Your task to perform on an android device: see creations saved in the google photos Image 0: 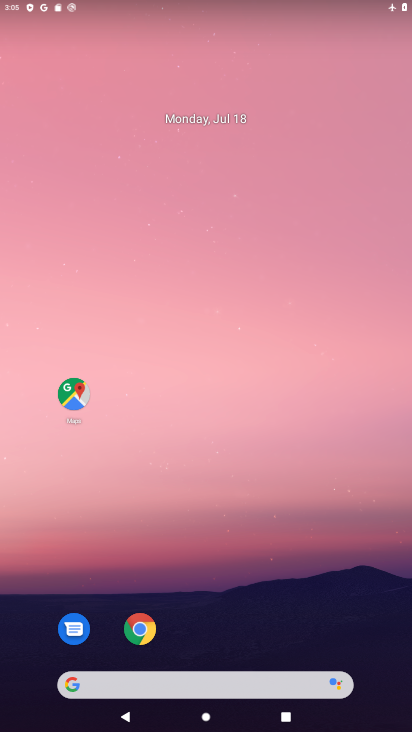
Step 0: drag from (196, 656) to (225, 96)
Your task to perform on an android device: see creations saved in the google photos Image 1: 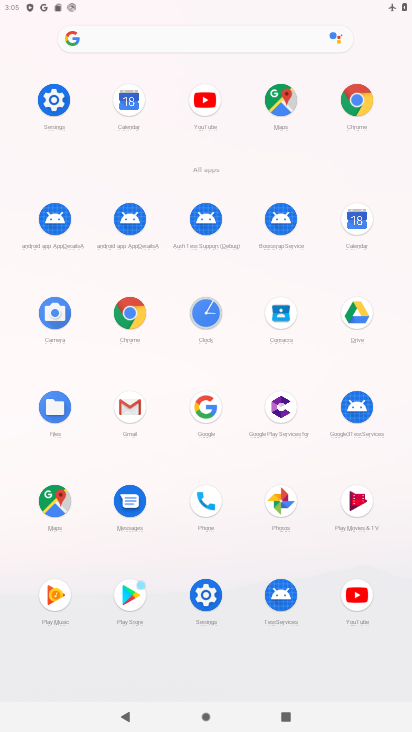
Step 1: click (289, 507)
Your task to perform on an android device: see creations saved in the google photos Image 2: 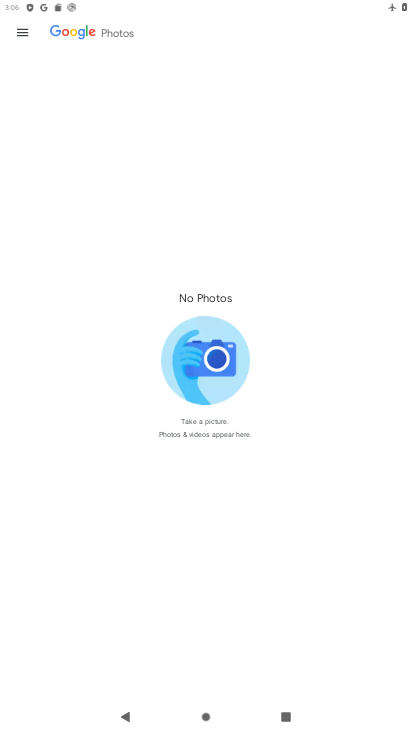
Step 2: click (137, 34)
Your task to perform on an android device: see creations saved in the google photos Image 3: 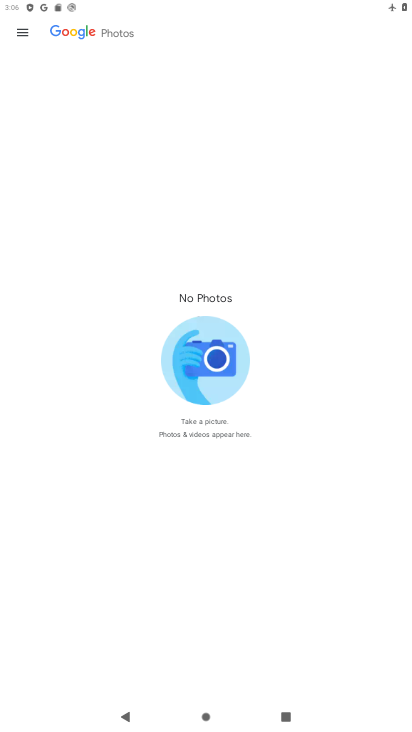
Step 3: click (24, 32)
Your task to perform on an android device: see creations saved in the google photos Image 4: 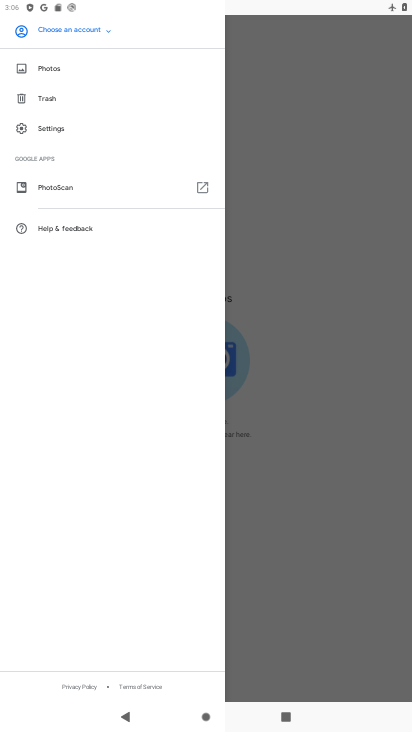
Step 4: click (47, 133)
Your task to perform on an android device: see creations saved in the google photos Image 5: 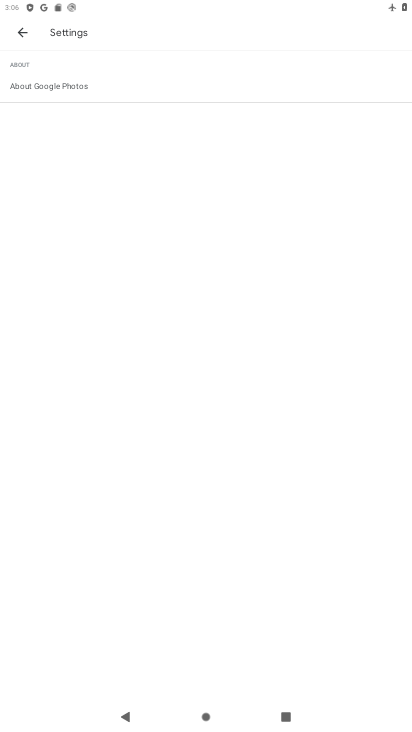
Step 5: click (22, 28)
Your task to perform on an android device: see creations saved in the google photos Image 6: 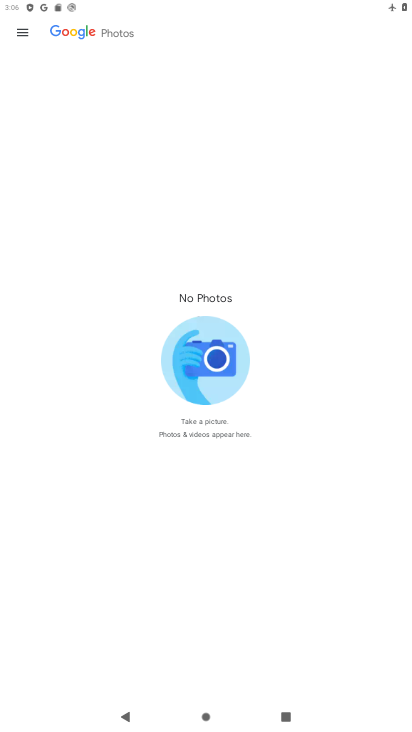
Step 6: task complete